Your task to perform on an android device: turn on the 24-hour format for clock Image 0: 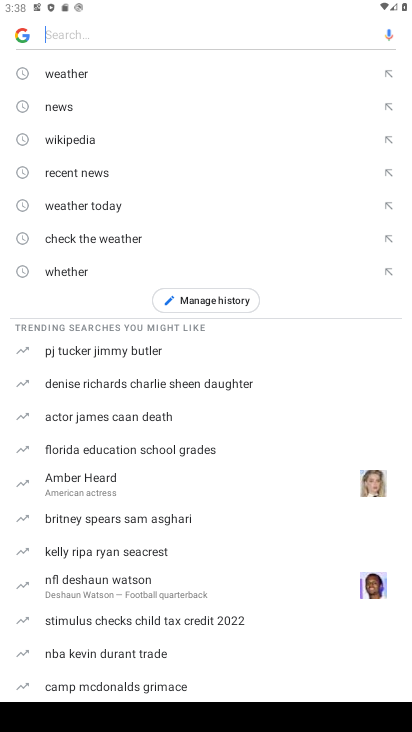
Step 0: press home button
Your task to perform on an android device: turn on the 24-hour format for clock Image 1: 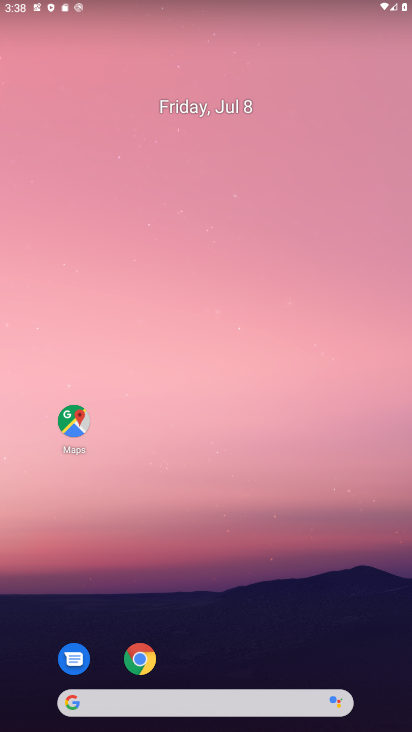
Step 1: drag from (225, 634) to (179, 184)
Your task to perform on an android device: turn on the 24-hour format for clock Image 2: 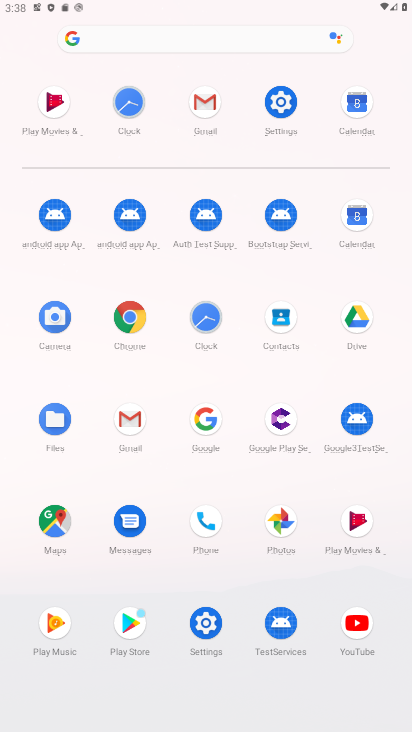
Step 2: click (132, 101)
Your task to perform on an android device: turn on the 24-hour format for clock Image 3: 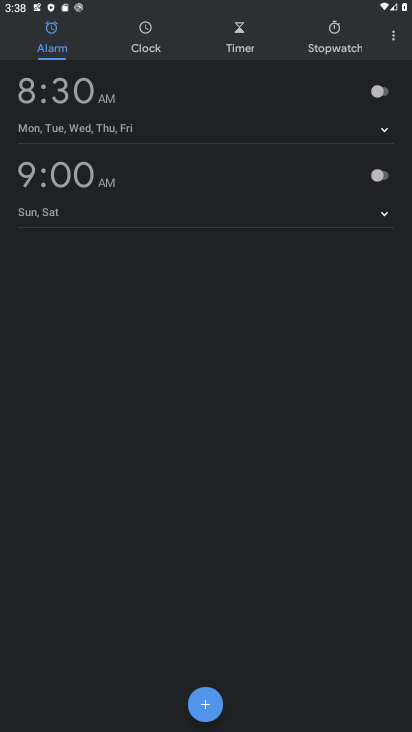
Step 3: click (389, 31)
Your task to perform on an android device: turn on the 24-hour format for clock Image 4: 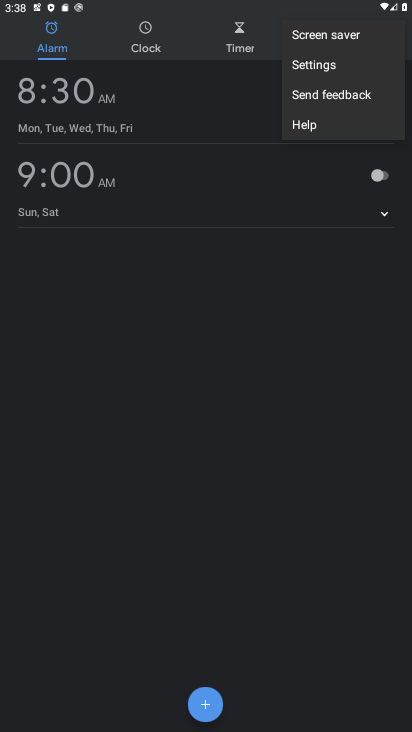
Step 4: click (357, 62)
Your task to perform on an android device: turn on the 24-hour format for clock Image 5: 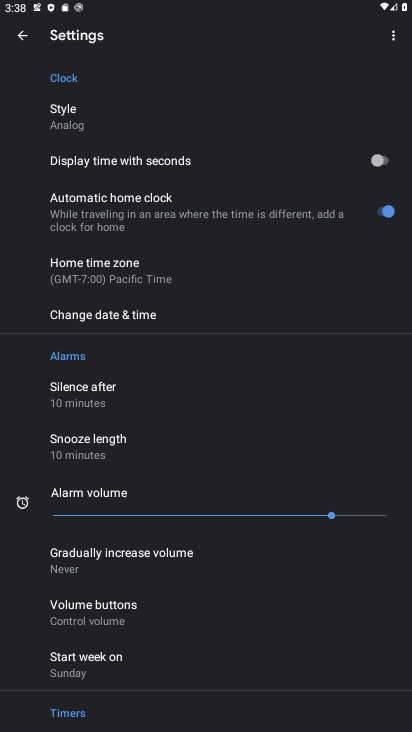
Step 5: click (159, 320)
Your task to perform on an android device: turn on the 24-hour format for clock Image 6: 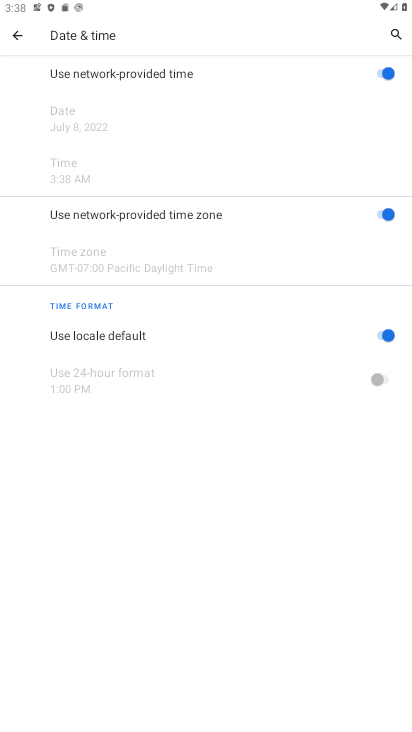
Step 6: click (381, 376)
Your task to perform on an android device: turn on the 24-hour format for clock Image 7: 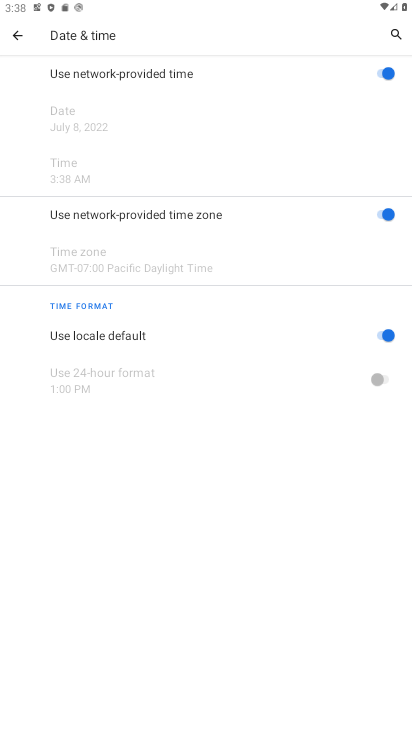
Step 7: click (380, 336)
Your task to perform on an android device: turn on the 24-hour format for clock Image 8: 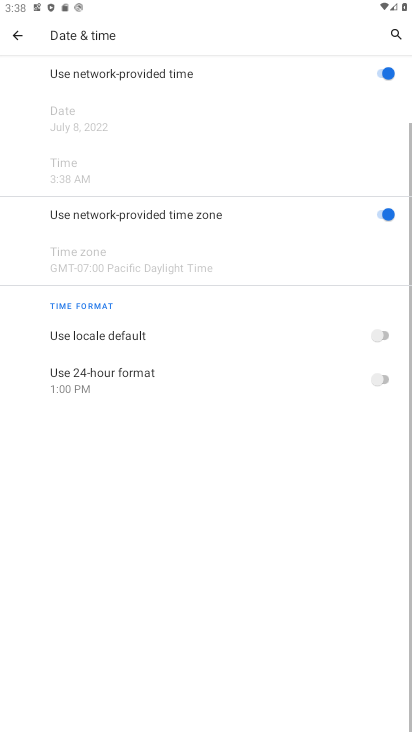
Step 8: click (383, 379)
Your task to perform on an android device: turn on the 24-hour format for clock Image 9: 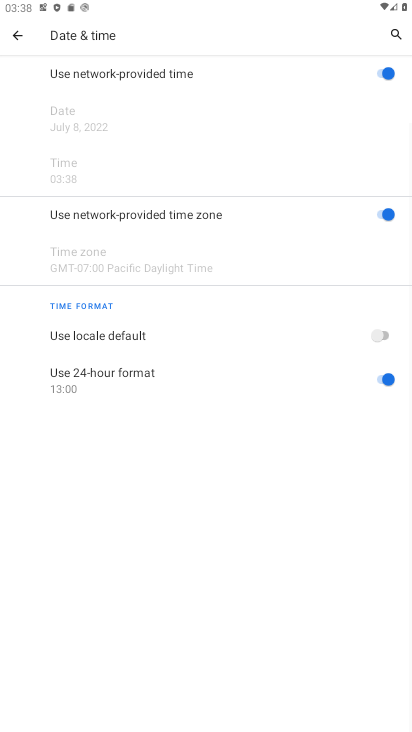
Step 9: task complete